Your task to perform on an android device: find photos in the google photos app Image 0: 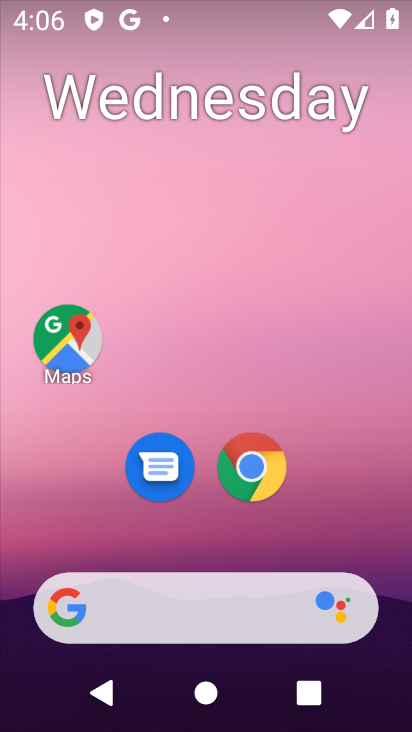
Step 0: drag from (197, 553) to (222, 7)
Your task to perform on an android device: find photos in the google photos app Image 1: 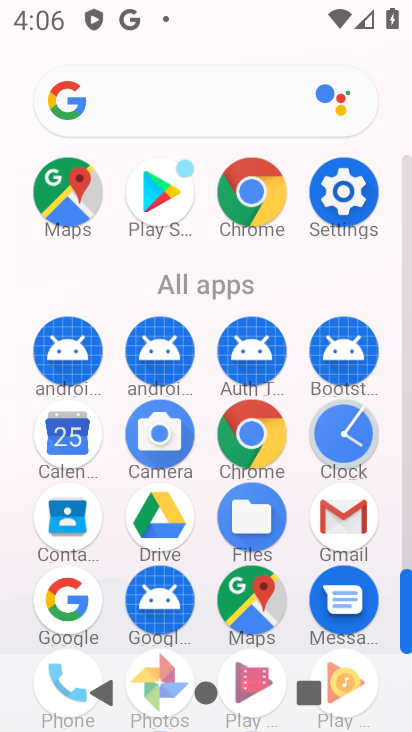
Step 1: drag from (261, 535) to (288, 269)
Your task to perform on an android device: find photos in the google photos app Image 2: 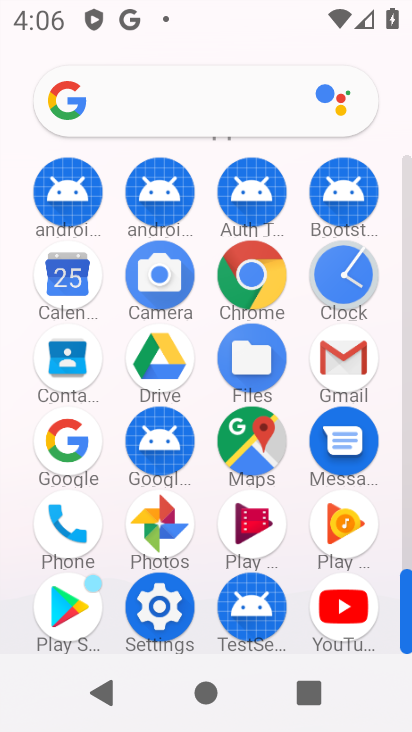
Step 2: click (154, 514)
Your task to perform on an android device: find photos in the google photos app Image 3: 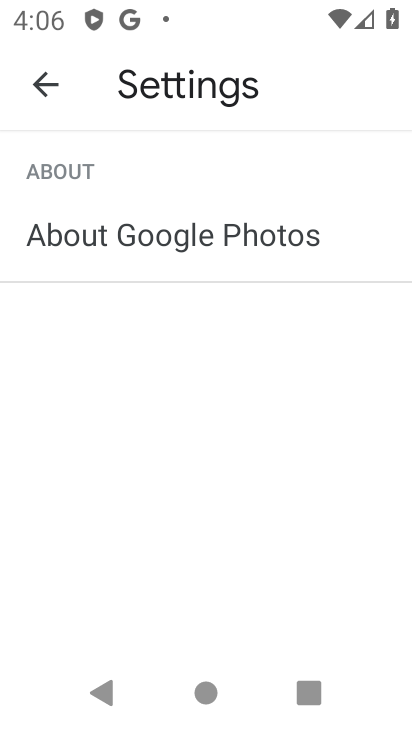
Step 3: click (47, 85)
Your task to perform on an android device: find photos in the google photos app Image 4: 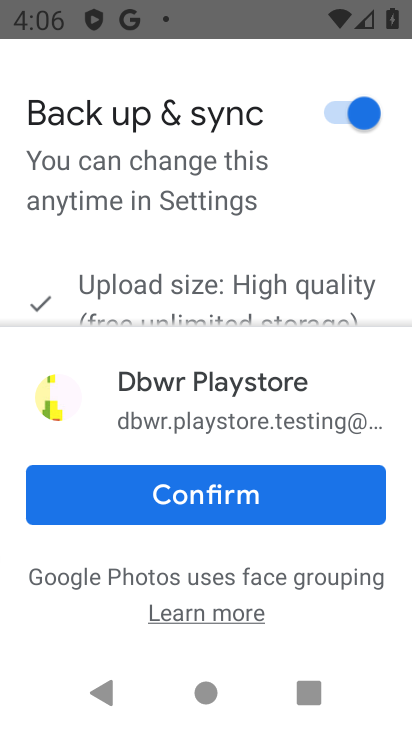
Step 4: click (178, 494)
Your task to perform on an android device: find photos in the google photos app Image 5: 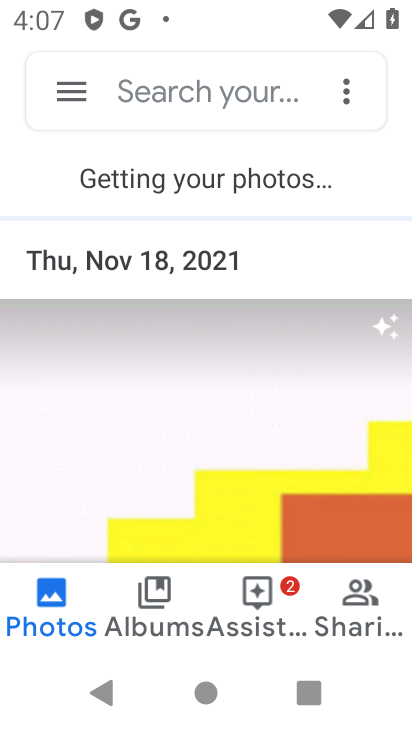
Step 5: task complete